Your task to perform on an android device: Search for the new ikea dresser Image 0: 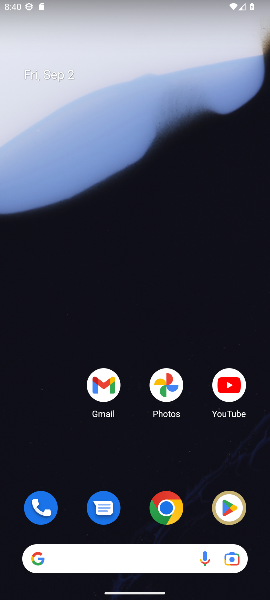
Step 0: click (162, 509)
Your task to perform on an android device: Search for the new ikea dresser Image 1: 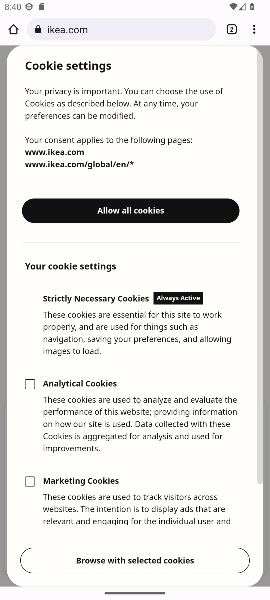
Step 1: click (147, 29)
Your task to perform on an android device: Search for the new ikea dresser Image 2: 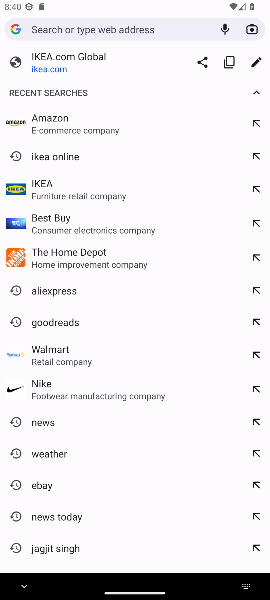
Step 2: type "ikea dresser"
Your task to perform on an android device: Search for the new ikea dresser Image 3: 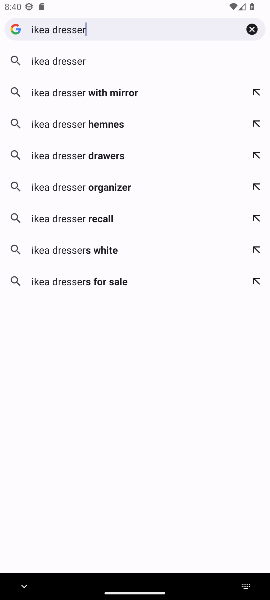
Step 3: click (64, 60)
Your task to perform on an android device: Search for the new ikea dresser Image 4: 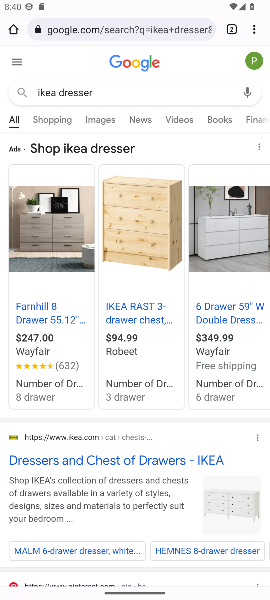
Step 4: task complete